Your task to perform on an android device: Open Youtube and go to "Your channel" Image 0: 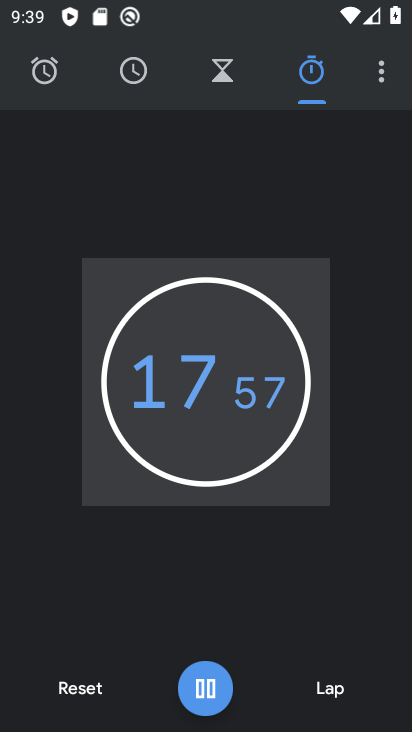
Step 0: press back button
Your task to perform on an android device: Open Youtube and go to "Your channel" Image 1: 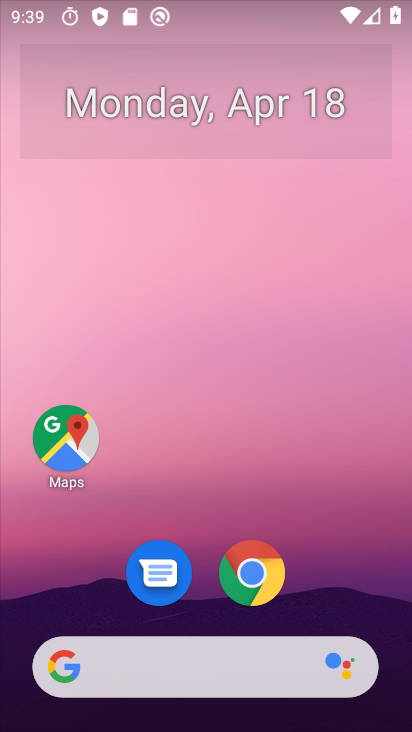
Step 1: drag from (208, 726) to (212, 108)
Your task to perform on an android device: Open Youtube and go to "Your channel" Image 2: 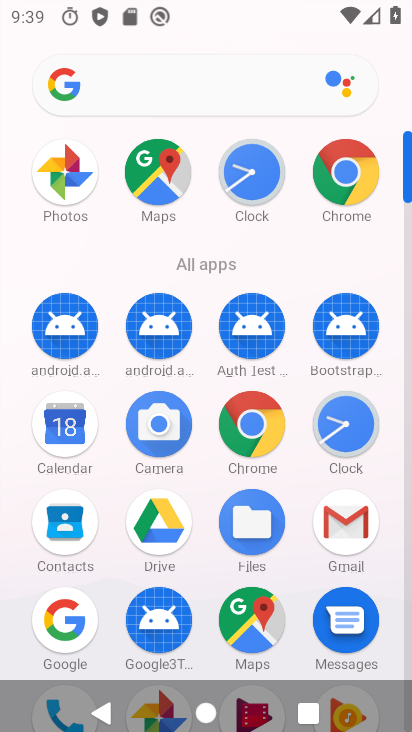
Step 2: drag from (199, 626) to (210, 206)
Your task to perform on an android device: Open Youtube and go to "Your channel" Image 3: 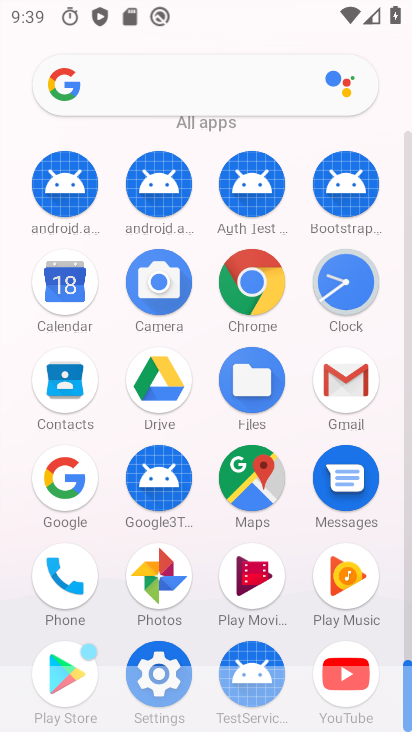
Step 3: drag from (296, 602) to (288, 189)
Your task to perform on an android device: Open Youtube and go to "Your channel" Image 4: 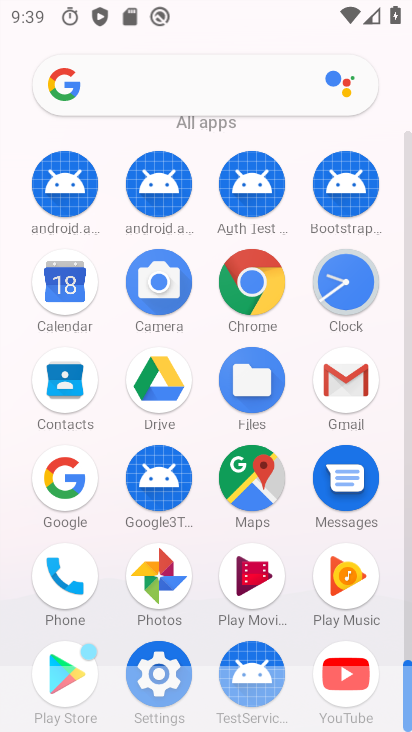
Step 4: drag from (286, 631) to (272, 175)
Your task to perform on an android device: Open Youtube and go to "Your channel" Image 5: 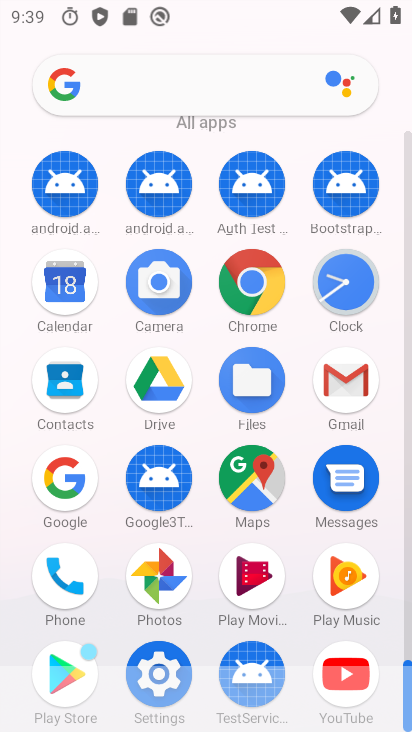
Step 5: drag from (302, 620) to (272, 167)
Your task to perform on an android device: Open Youtube and go to "Your channel" Image 6: 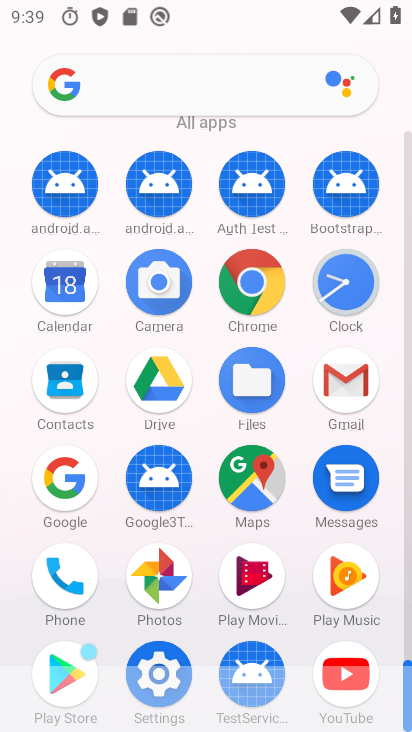
Step 6: click (346, 674)
Your task to perform on an android device: Open Youtube and go to "Your channel" Image 7: 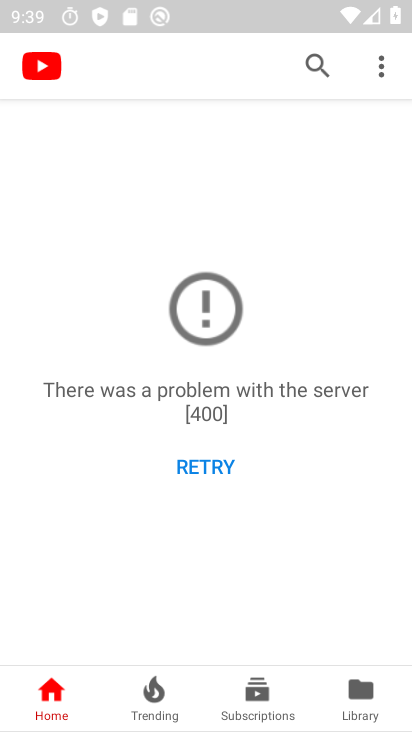
Step 7: click (359, 695)
Your task to perform on an android device: Open Youtube and go to "Your channel" Image 8: 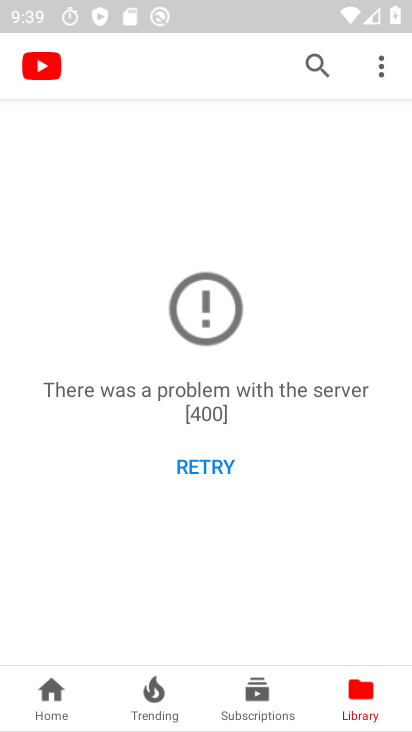
Step 8: click (378, 66)
Your task to perform on an android device: Open Youtube and go to "Your channel" Image 9: 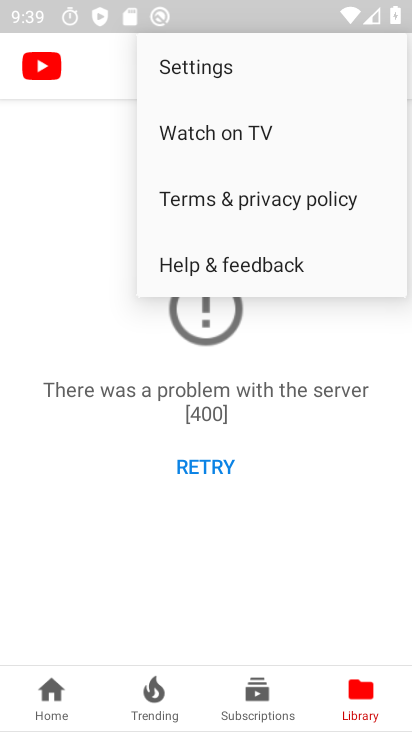
Step 9: click (59, 334)
Your task to perform on an android device: Open Youtube and go to "Your channel" Image 10: 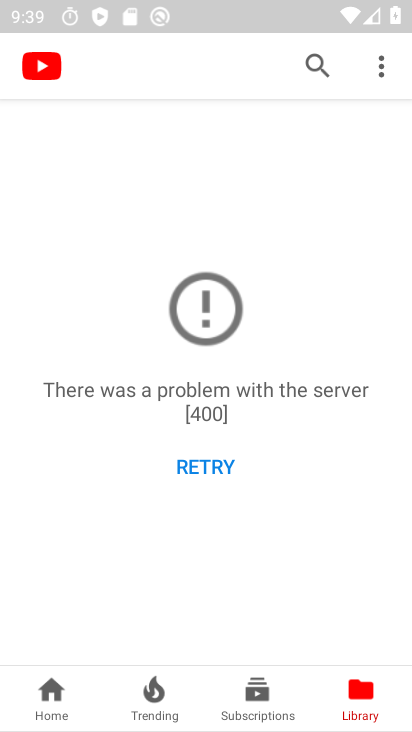
Step 10: click (259, 694)
Your task to perform on an android device: Open Youtube and go to "Your channel" Image 11: 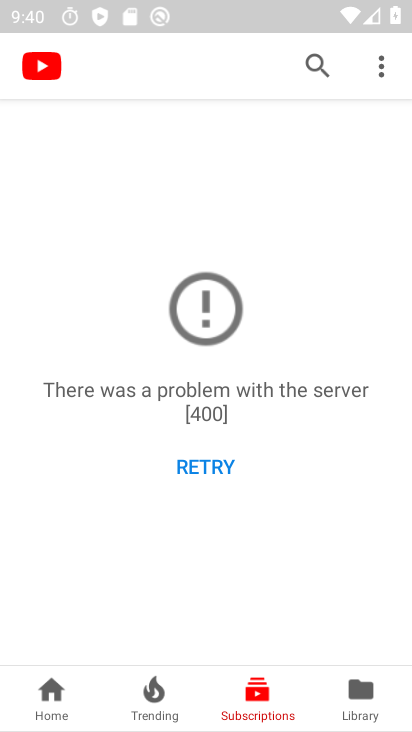
Step 11: task complete